Your task to perform on an android device: Open Google Maps and go to "Timeline" Image 0: 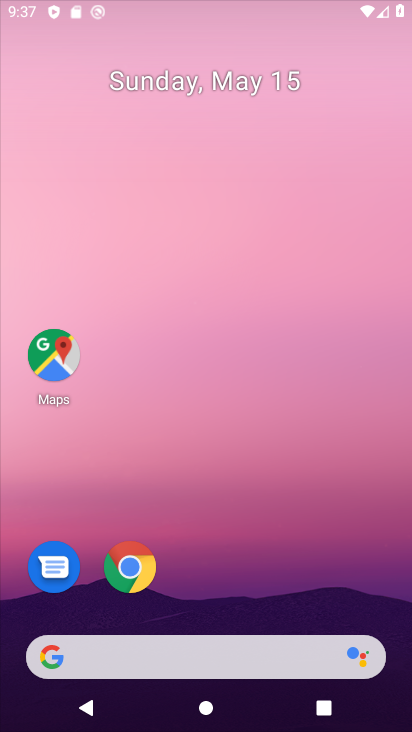
Step 0: drag from (220, 597) to (233, 157)
Your task to perform on an android device: Open Google Maps and go to "Timeline" Image 1: 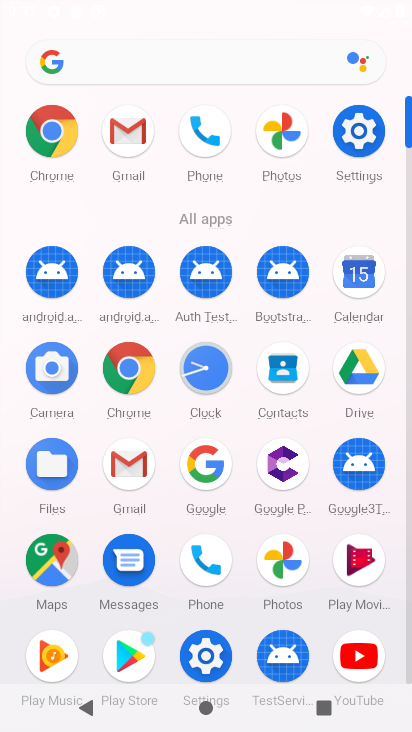
Step 1: click (45, 564)
Your task to perform on an android device: Open Google Maps and go to "Timeline" Image 2: 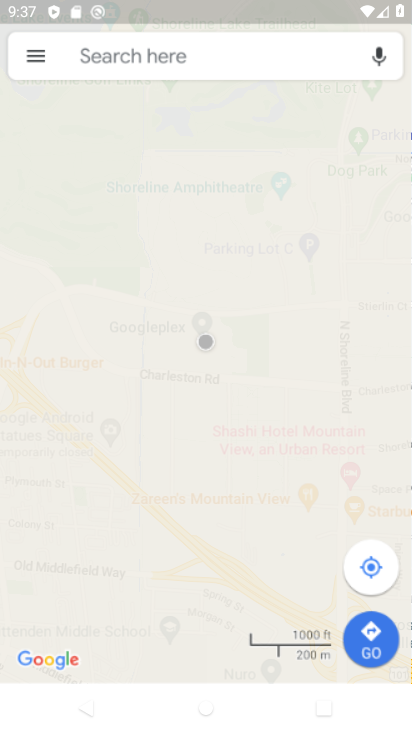
Step 2: click (34, 57)
Your task to perform on an android device: Open Google Maps and go to "Timeline" Image 3: 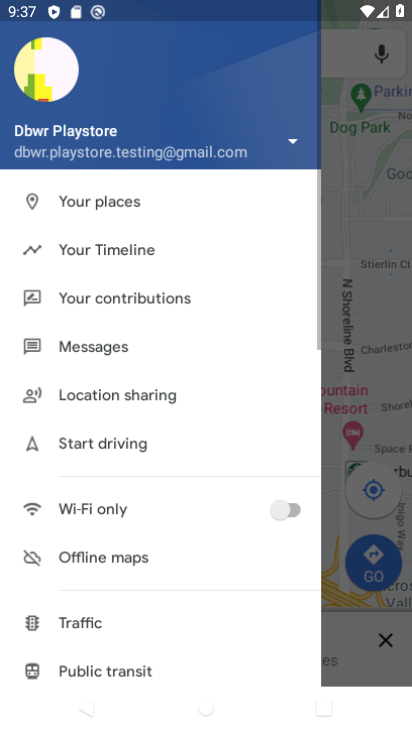
Step 3: click (126, 259)
Your task to perform on an android device: Open Google Maps and go to "Timeline" Image 4: 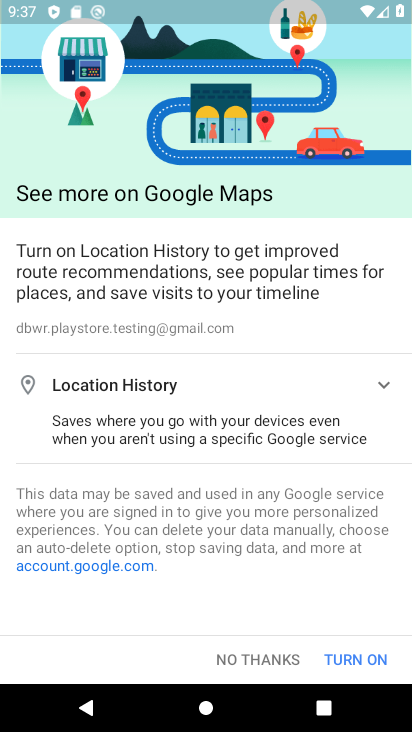
Step 4: click (224, 665)
Your task to perform on an android device: Open Google Maps and go to "Timeline" Image 5: 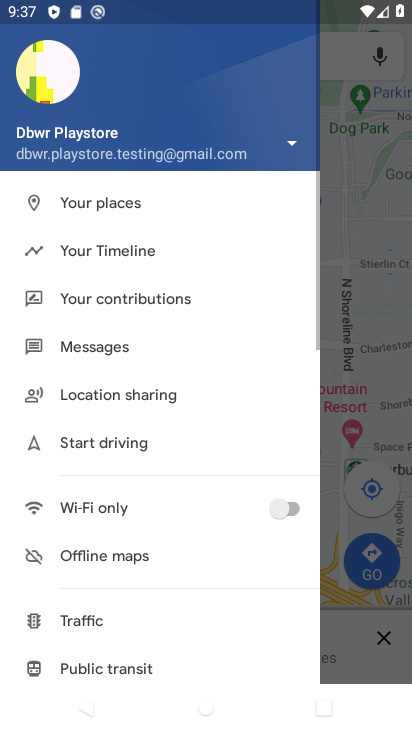
Step 5: click (118, 256)
Your task to perform on an android device: Open Google Maps and go to "Timeline" Image 6: 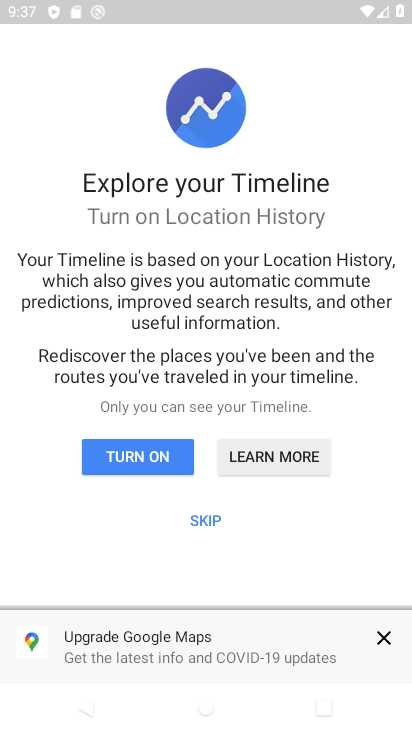
Step 6: click (199, 529)
Your task to perform on an android device: Open Google Maps and go to "Timeline" Image 7: 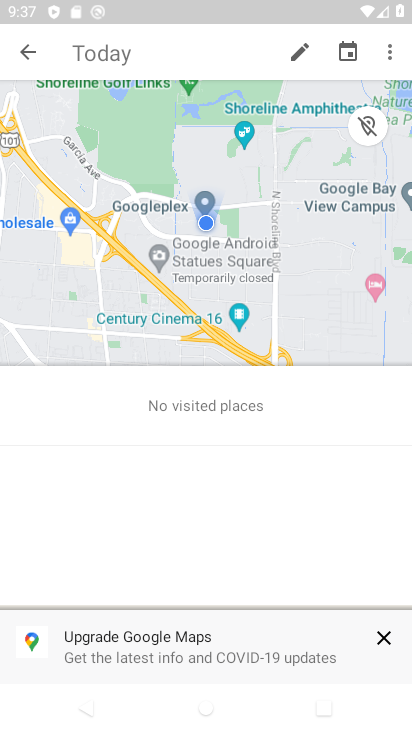
Step 7: task complete